Your task to perform on an android device: check android version Image 0: 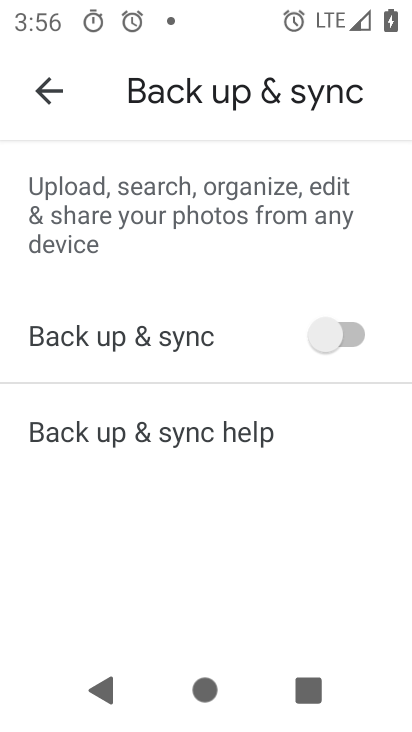
Step 0: press home button
Your task to perform on an android device: check android version Image 1: 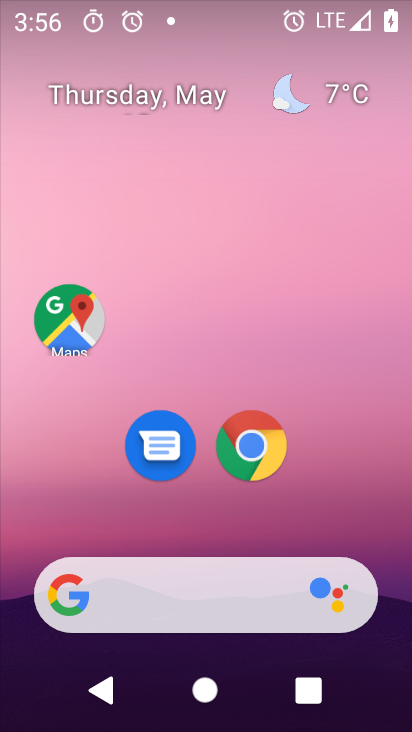
Step 1: drag from (372, 543) to (397, 27)
Your task to perform on an android device: check android version Image 2: 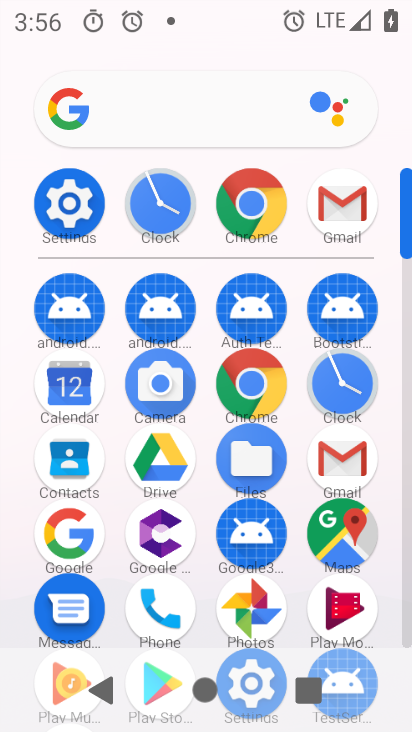
Step 2: click (64, 206)
Your task to perform on an android device: check android version Image 3: 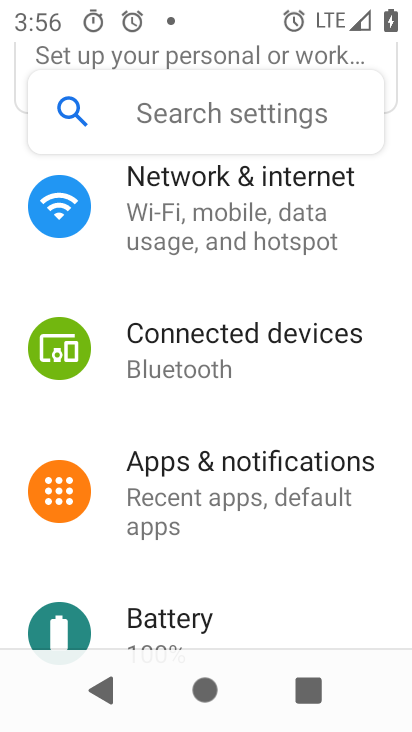
Step 3: drag from (331, 595) to (345, 139)
Your task to perform on an android device: check android version Image 4: 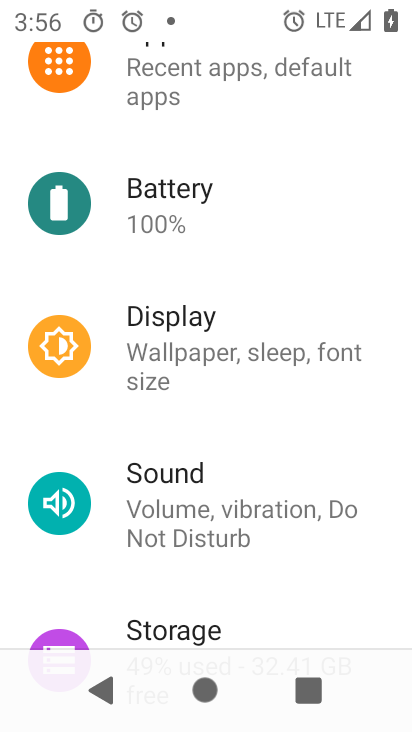
Step 4: drag from (341, 480) to (332, 221)
Your task to perform on an android device: check android version Image 5: 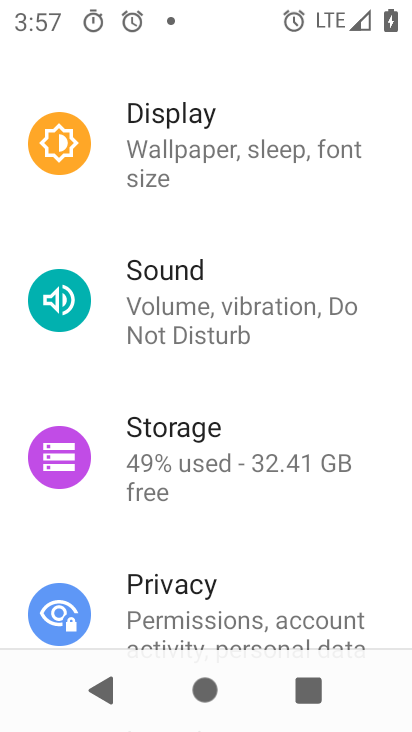
Step 5: drag from (287, 530) to (299, 137)
Your task to perform on an android device: check android version Image 6: 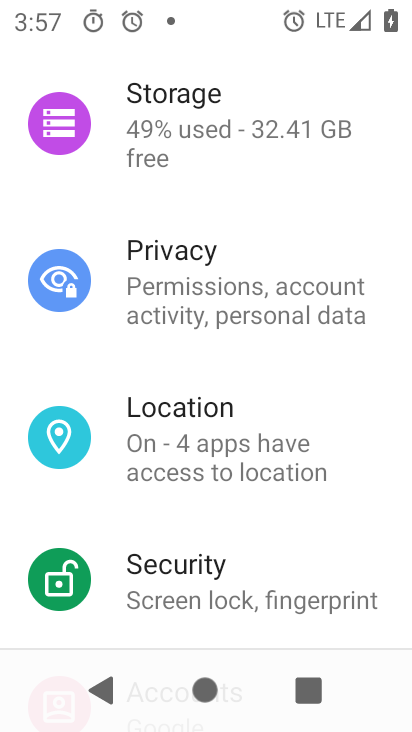
Step 6: drag from (335, 581) to (346, 162)
Your task to perform on an android device: check android version Image 7: 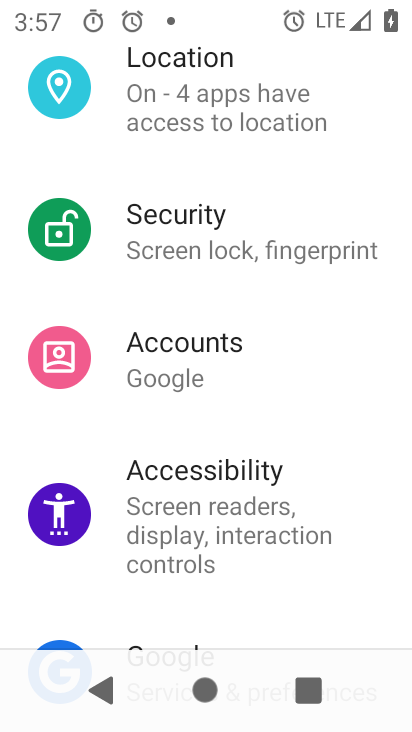
Step 7: drag from (335, 468) to (349, 145)
Your task to perform on an android device: check android version Image 8: 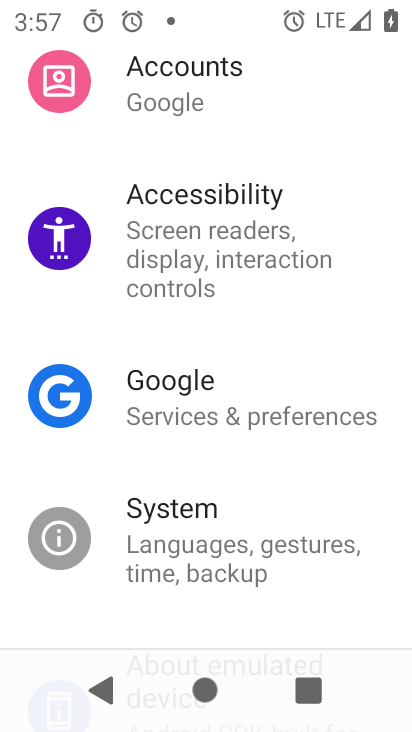
Step 8: drag from (306, 499) to (330, 150)
Your task to perform on an android device: check android version Image 9: 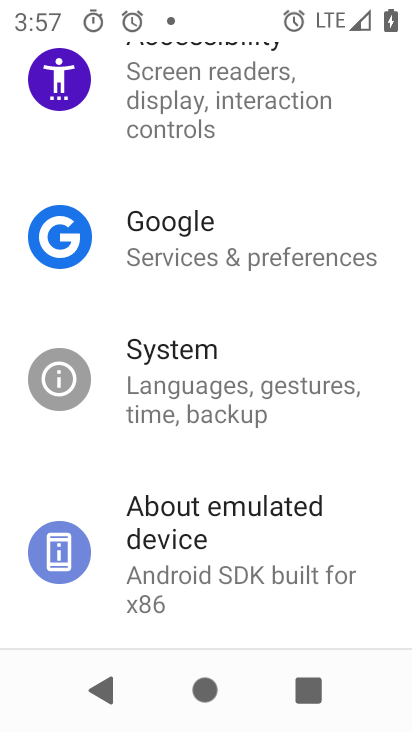
Step 9: click (186, 544)
Your task to perform on an android device: check android version Image 10: 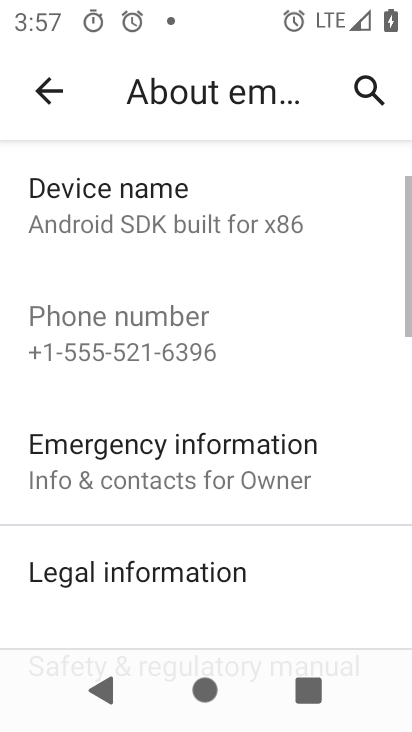
Step 10: drag from (285, 539) to (333, 202)
Your task to perform on an android device: check android version Image 11: 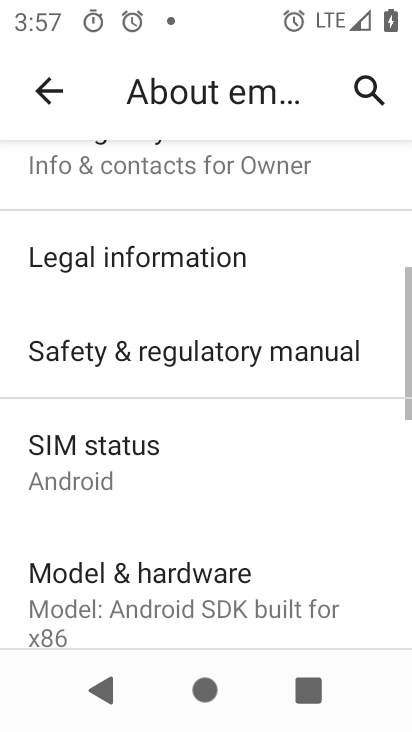
Step 11: drag from (235, 483) to (266, 157)
Your task to perform on an android device: check android version Image 12: 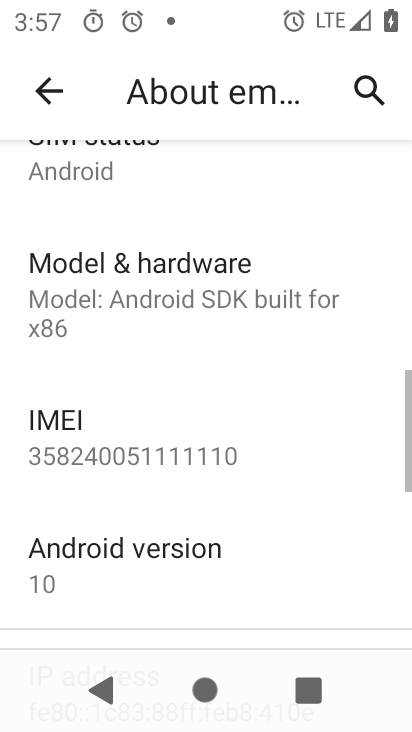
Step 12: click (161, 548)
Your task to perform on an android device: check android version Image 13: 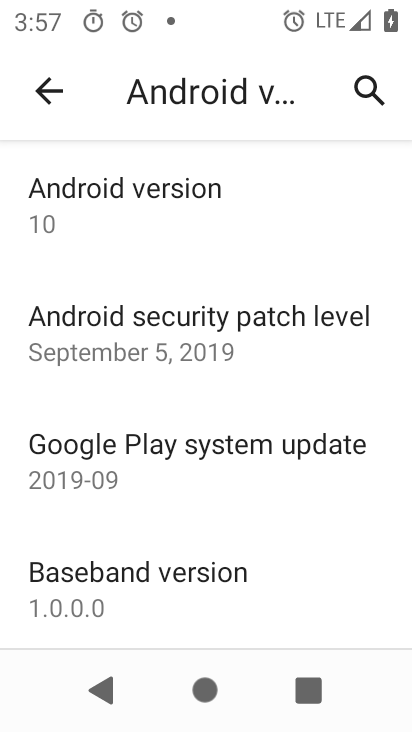
Step 13: task complete